Your task to perform on an android device: Search for Italian restaurants on Maps Image 0: 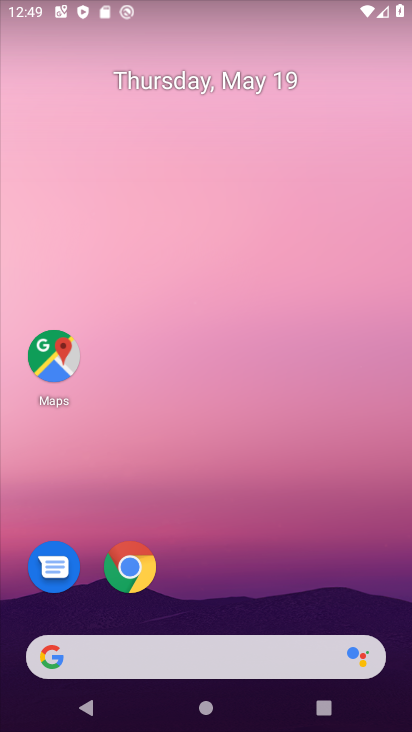
Step 0: click (71, 349)
Your task to perform on an android device: Search for Italian restaurants on Maps Image 1: 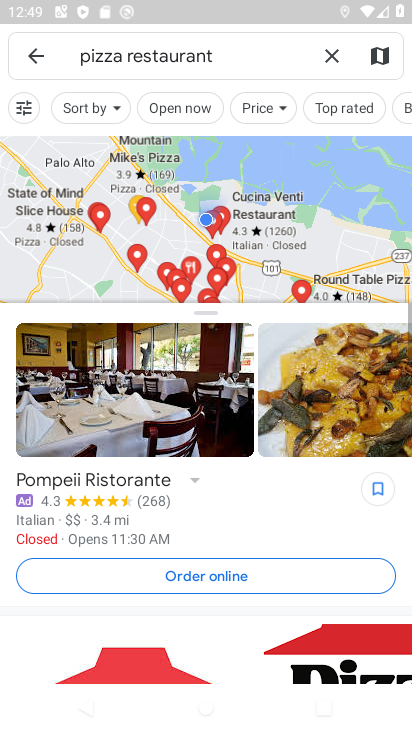
Step 1: click (327, 58)
Your task to perform on an android device: Search for Italian restaurants on Maps Image 2: 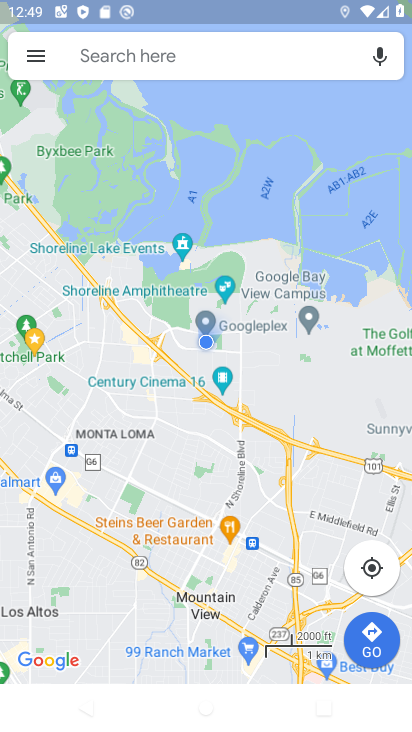
Step 2: click (183, 52)
Your task to perform on an android device: Search for Italian restaurants on Maps Image 3: 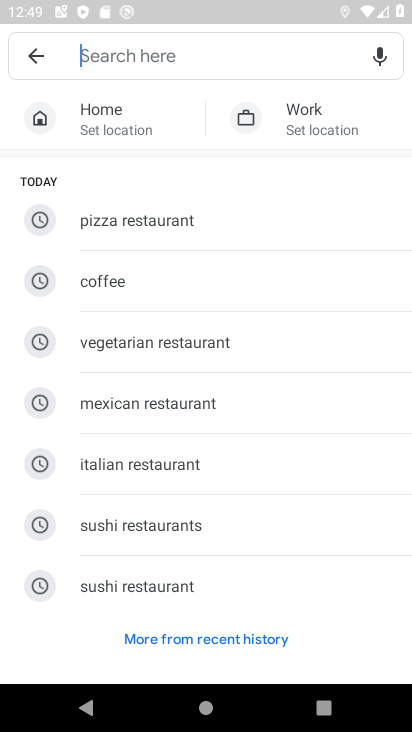
Step 3: click (136, 463)
Your task to perform on an android device: Search for Italian restaurants on Maps Image 4: 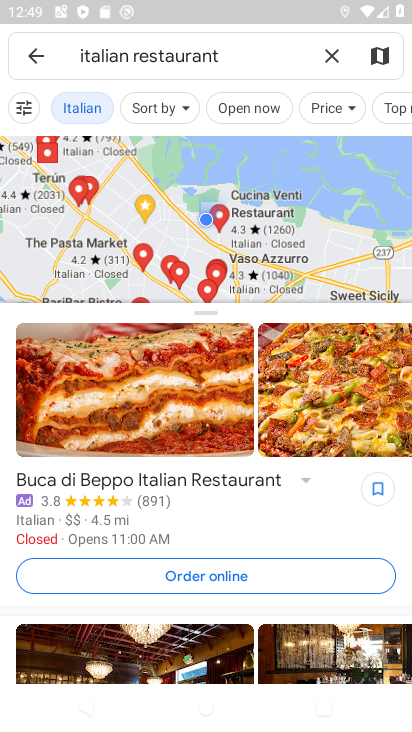
Step 4: task complete